Your task to perform on an android device: add a contact in the contacts app Image 0: 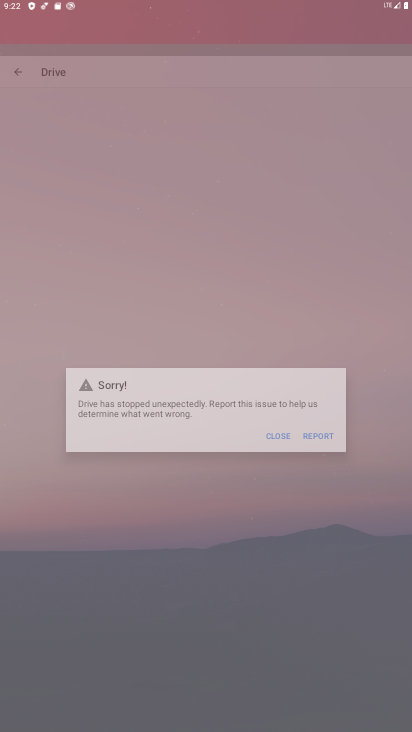
Step 0: click (351, 132)
Your task to perform on an android device: add a contact in the contacts app Image 1: 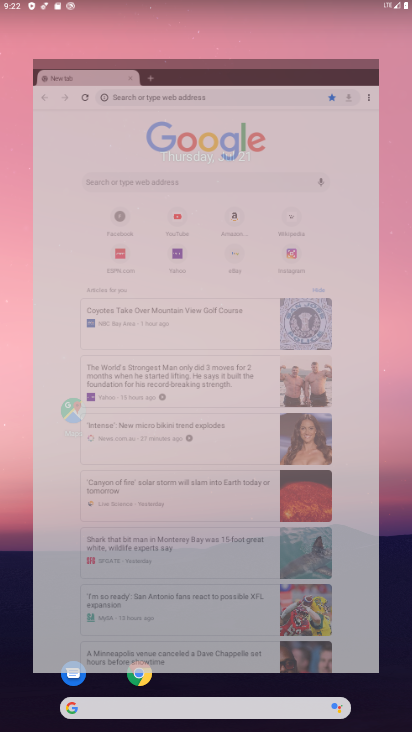
Step 1: drag from (181, 617) to (190, 184)
Your task to perform on an android device: add a contact in the contacts app Image 2: 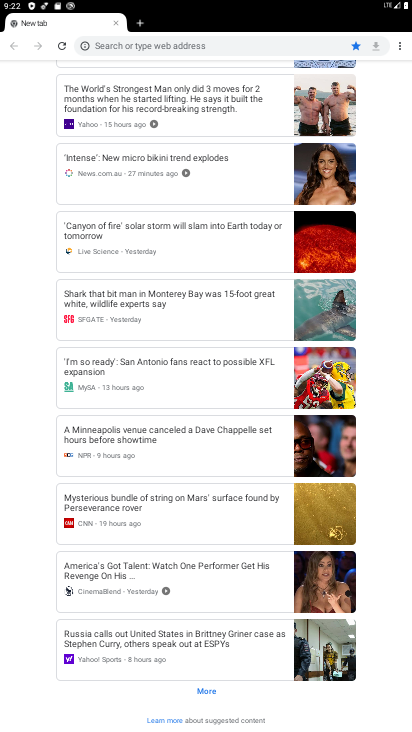
Step 2: drag from (238, 189) to (314, 725)
Your task to perform on an android device: add a contact in the contacts app Image 3: 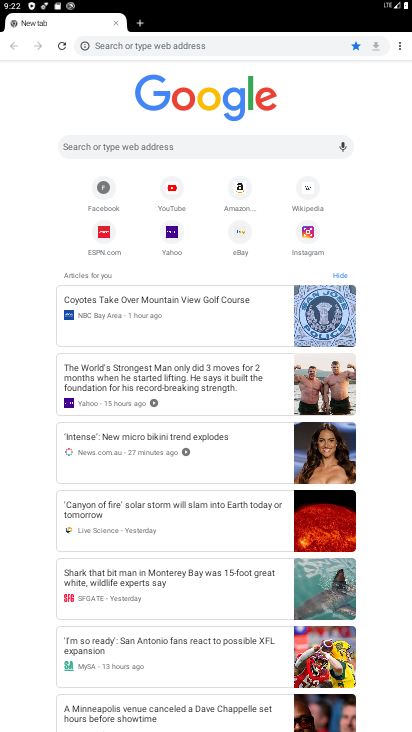
Step 3: press home button
Your task to perform on an android device: add a contact in the contacts app Image 4: 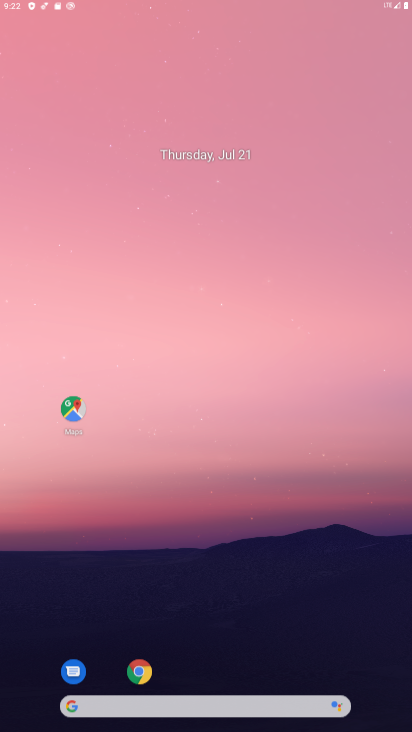
Step 4: drag from (199, 580) to (295, 86)
Your task to perform on an android device: add a contact in the contacts app Image 5: 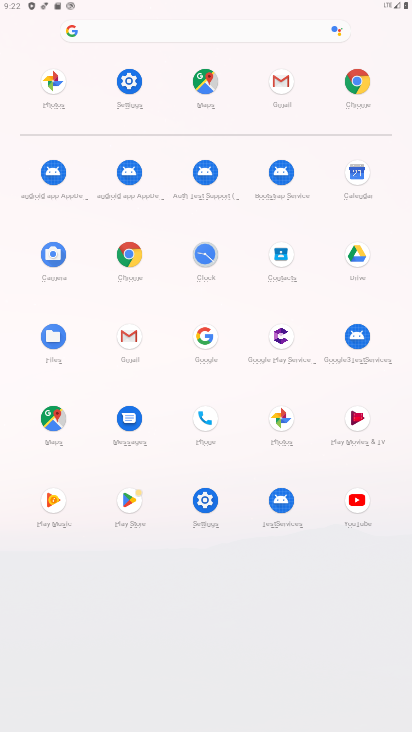
Step 5: click (284, 252)
Your task to perform on an android device: add a contact in the contacts app Image 6: 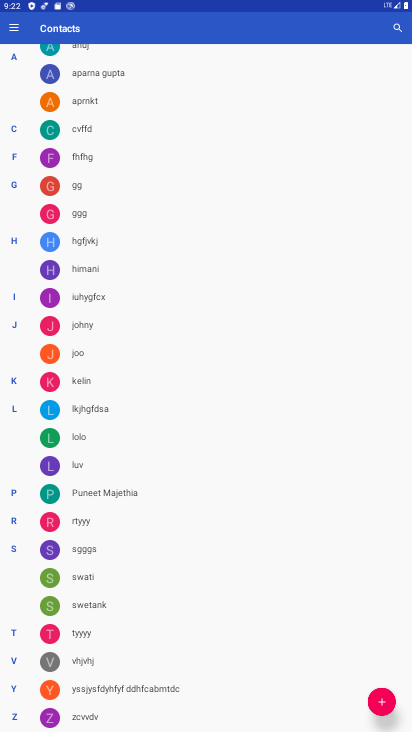
Step 6: drag from (205, 275) to (371, 713)
Your task to perform on an android device: add a contact in the contacts app Image 7: 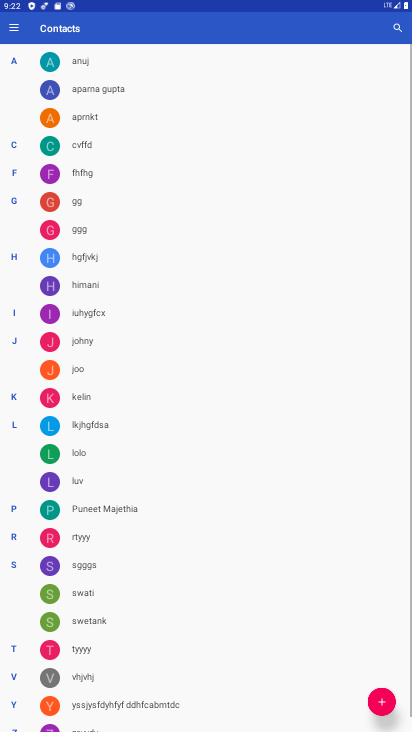
Step 7: click (381, 703)
Your task to perform on an android device: add a contact in the contacts app Image 8: 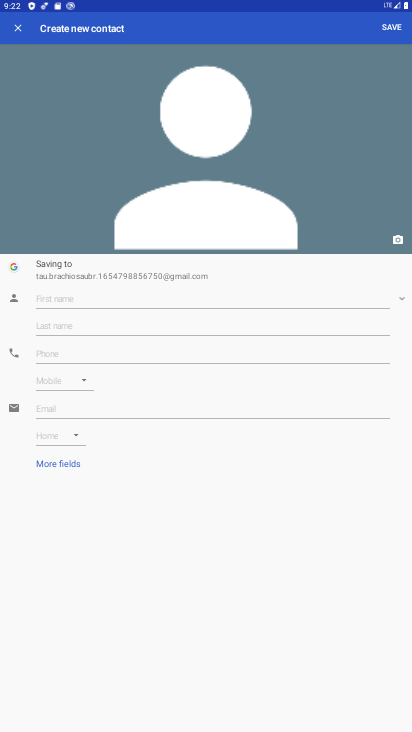
Step 8: click (64, 299)
Your task to perform on an android device: add a contact in the contacts app Image 9: 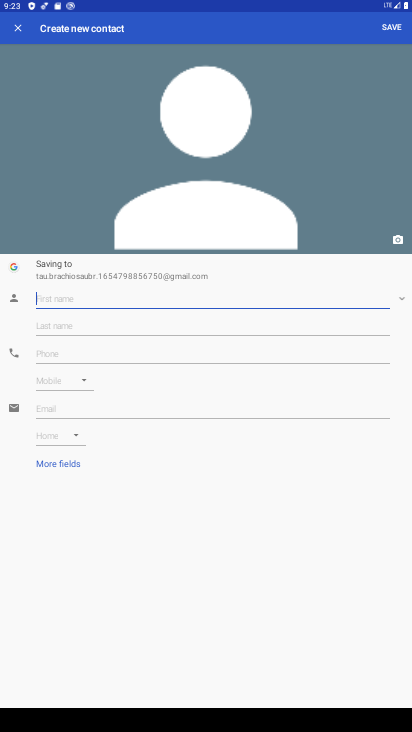
Step 9: type "majkajs"
Your task to perform on an android device: add a contact in the contacts app Image 10: 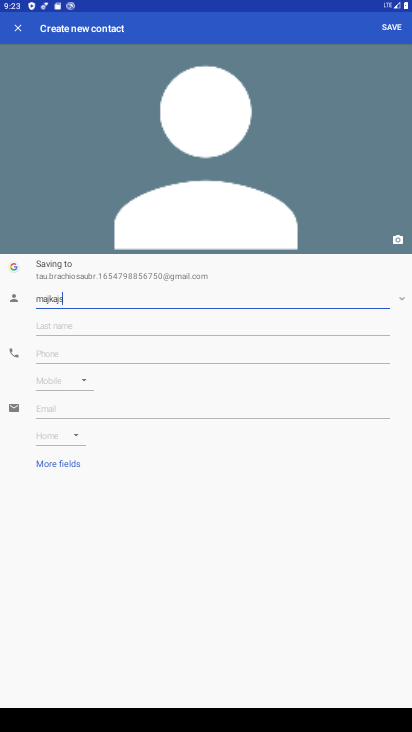
Step 10: click (53, 352)
Your task to perform on an android device: add a contact in the contacts app Image 11: 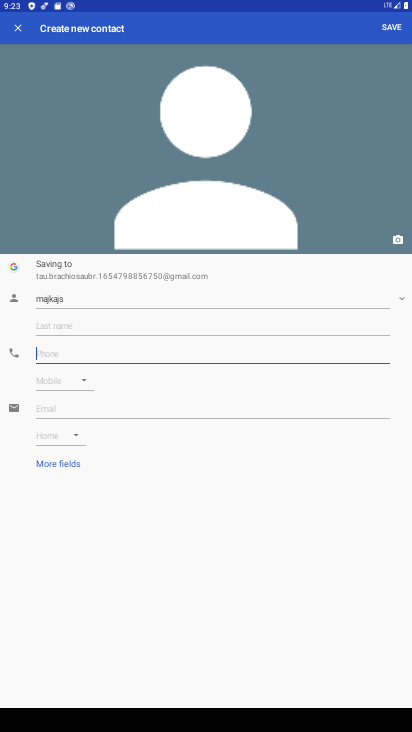
Step 11: type "82983y9292221"
Your task to perform on an android device: add a contact in the contacts app Image 12: 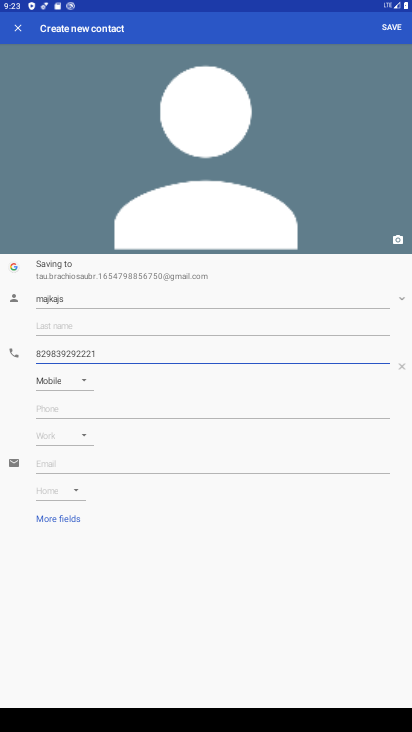
Step 12: click (396, 27)
Your task to perform on an android device: add a contact in the contacts app Image 13: 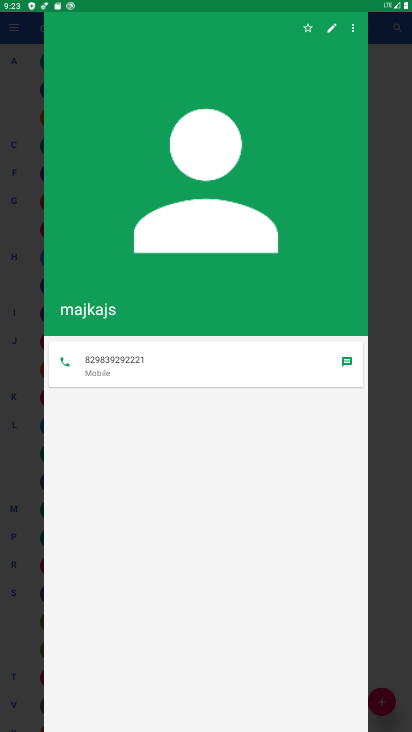
Step 13: task complete